Your task to perform on an android device: open app "Google Photos" Image 0: 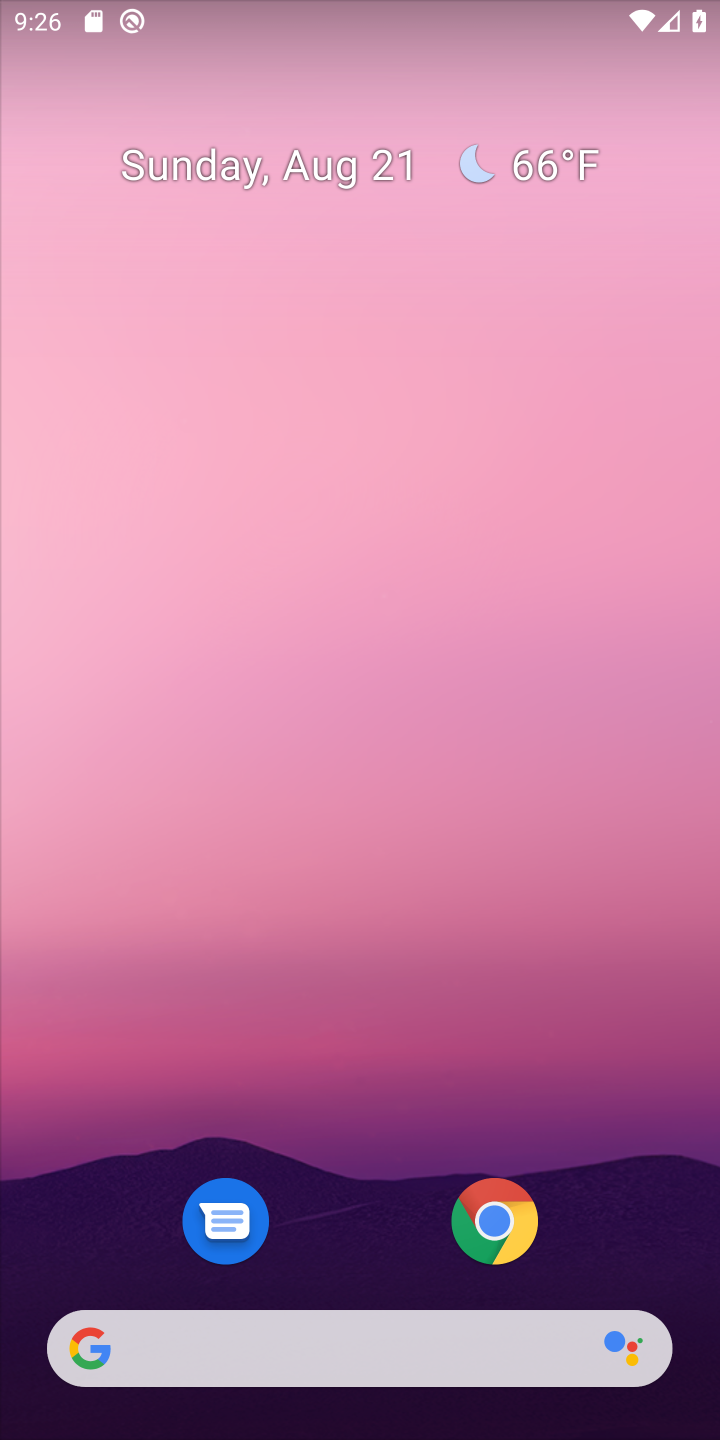
Step 0: drag from (366, 1150) to (298, 491)
Your task to perform on an android device: open app "Google Photos" Image 1: 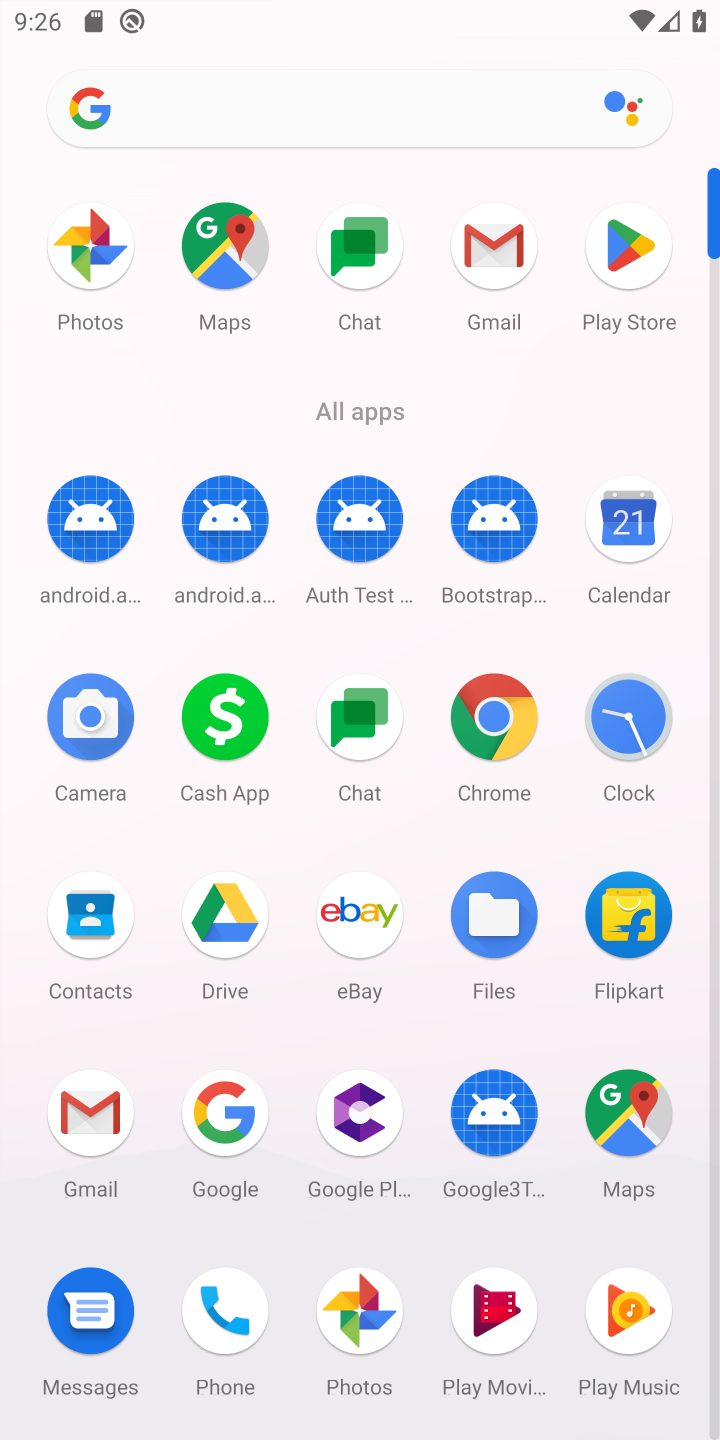
Step 1: click (608, 257)
Your task to perform on an android device: open app "Google Photos" Image 2: 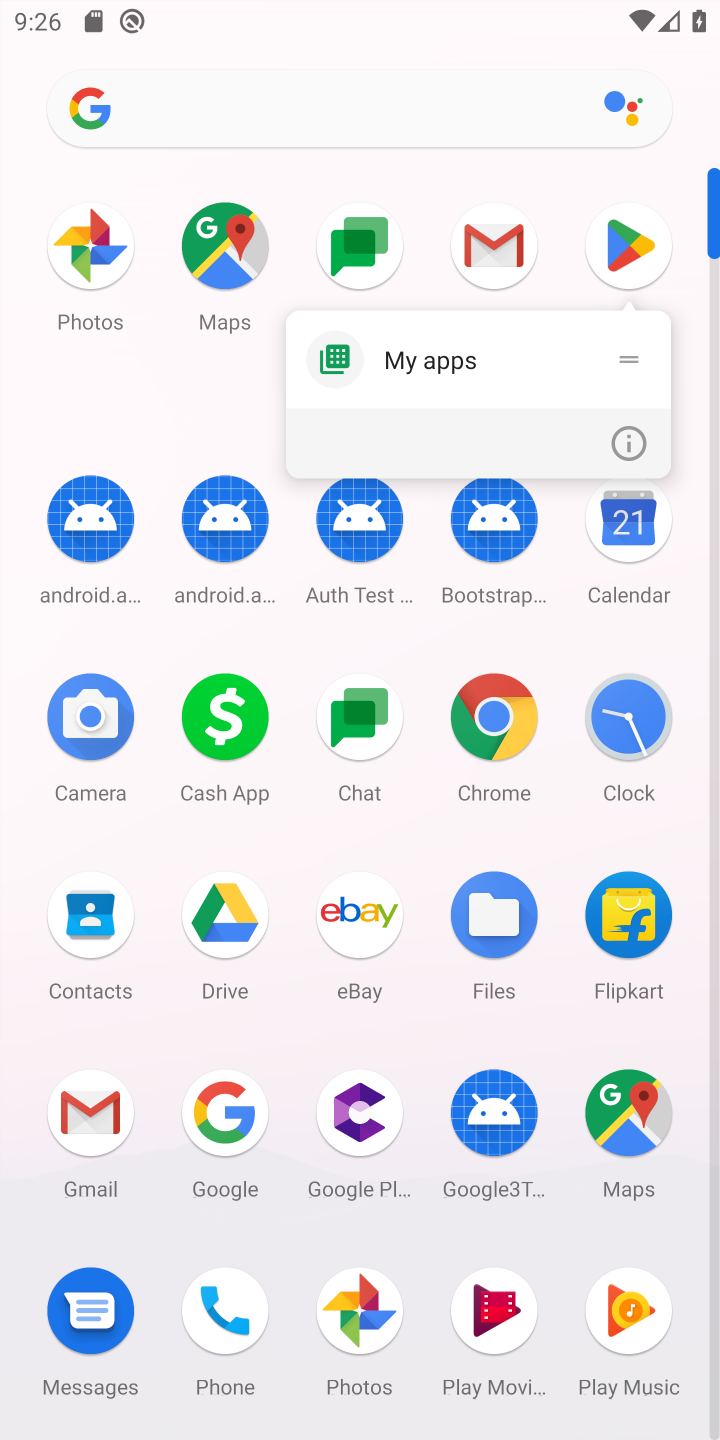
Step 2: click (617, 238)
Your task to perform on an android device: open app "Google Photos" Image 3: 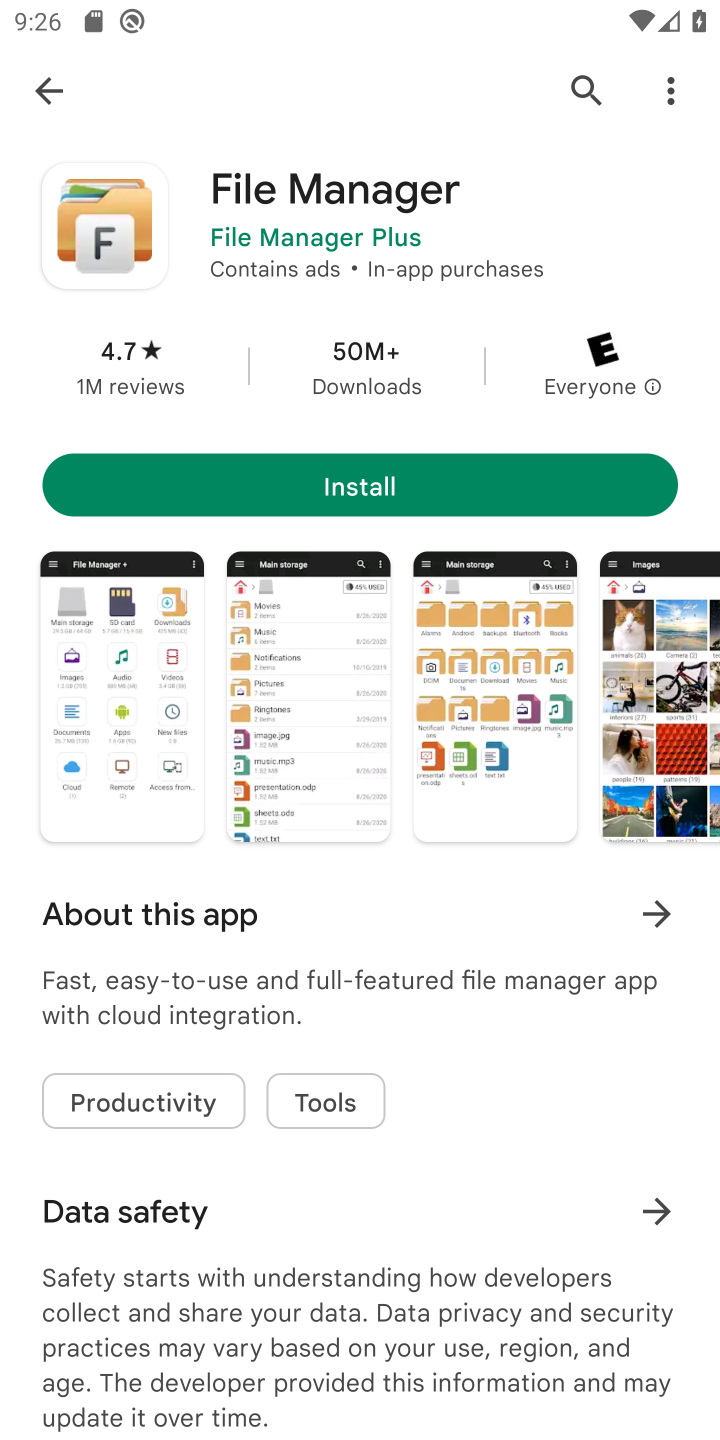
Step 3: click (576, 95)
Your task to perform on an android device: open app "Google Photos" Image 4: 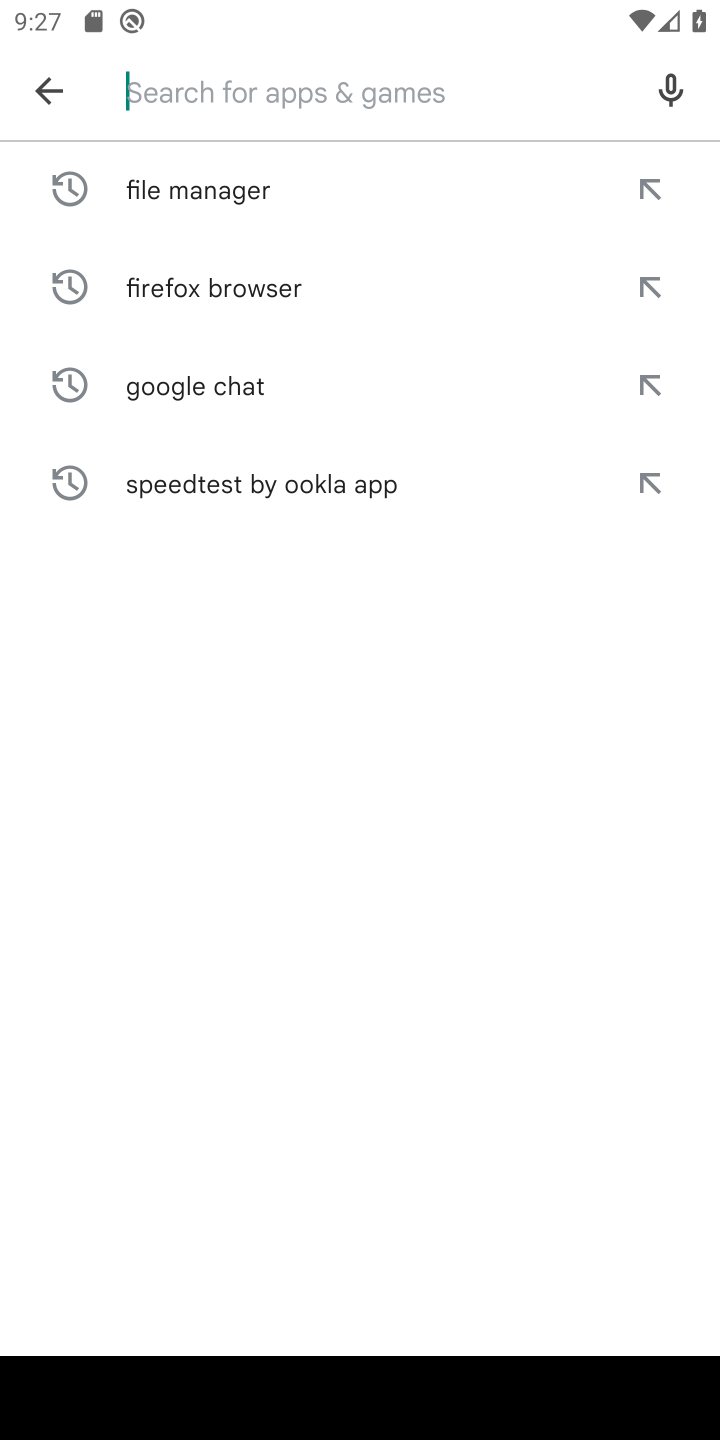
Step 4: type "Google Photos"
Your task to perform on an android device: open app "Google Photos" Image 5: 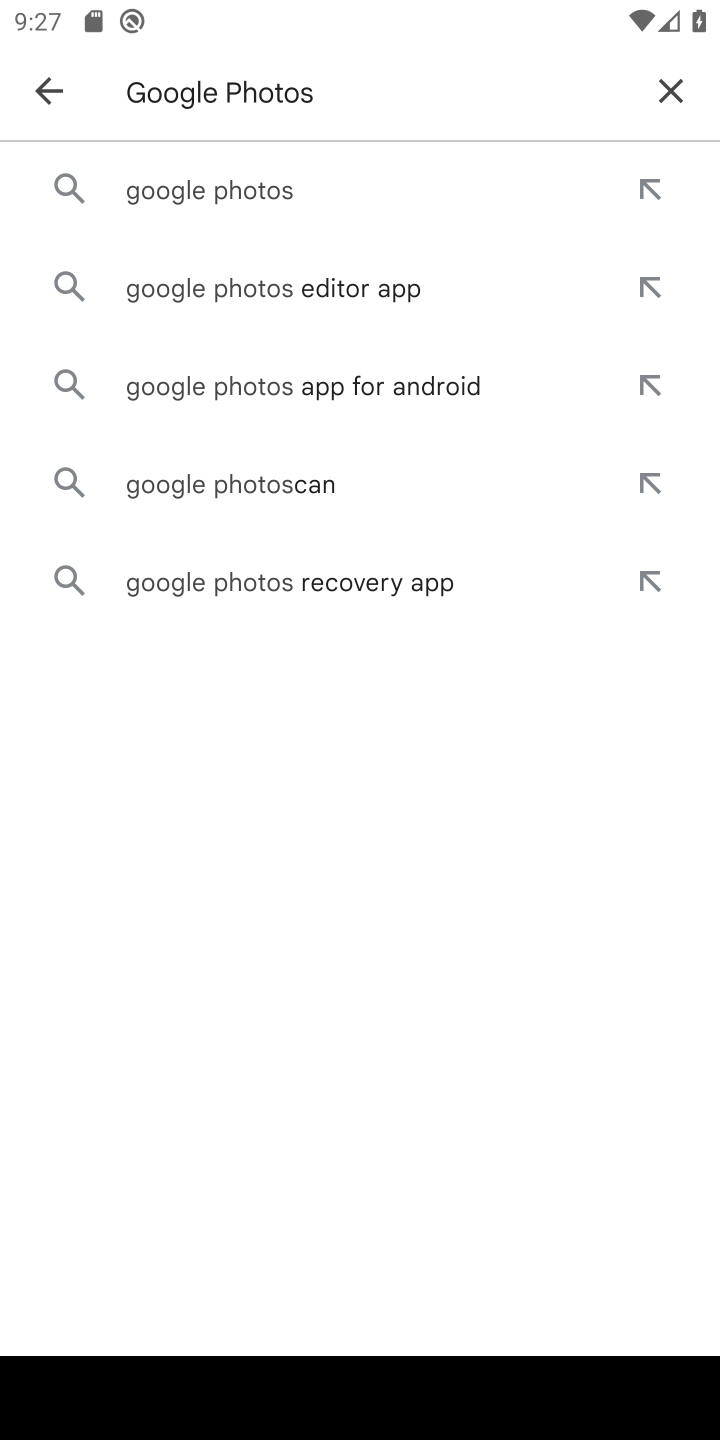
Step 5: click (244, 190)
Your task to perform on an android device: open app "Google Photos" Image 6: 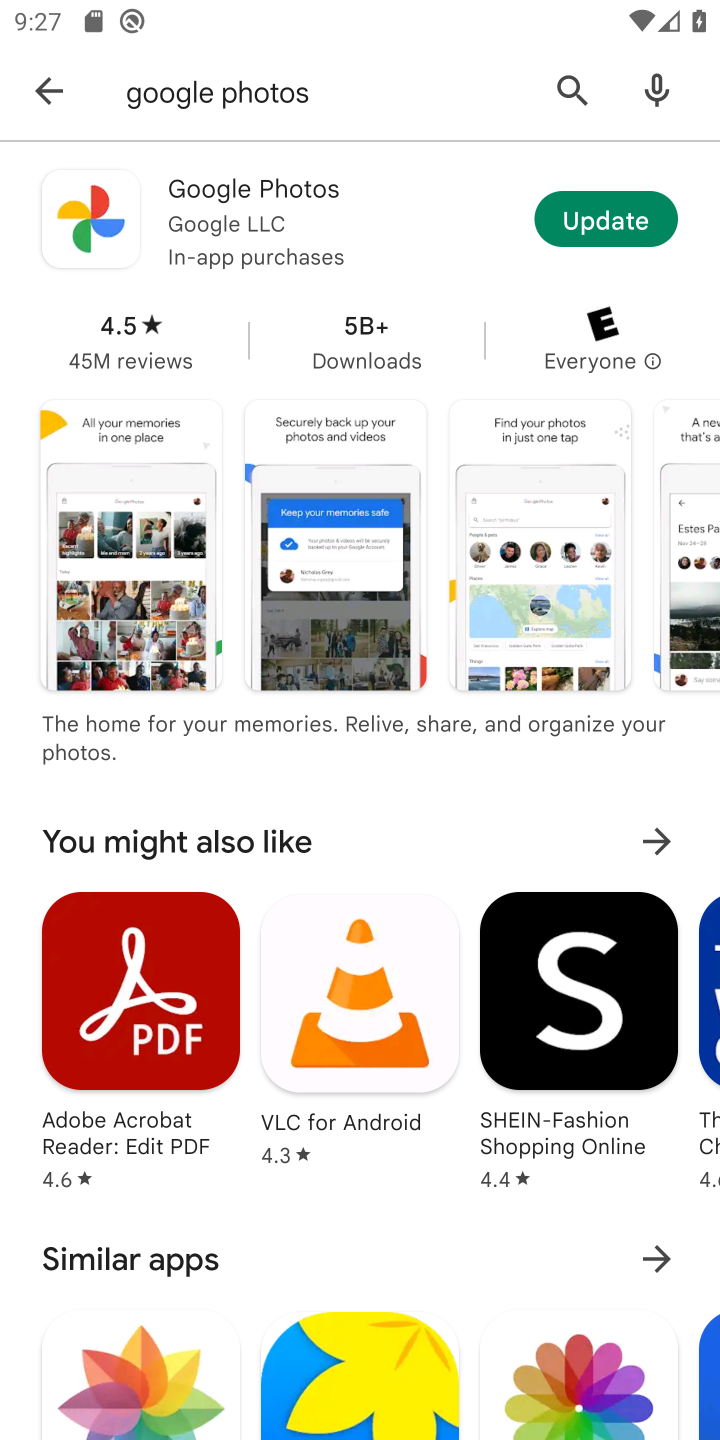
Step 6: click (361, 203)
Your task to perform on an android device: open app "Google Photos" Image 7: 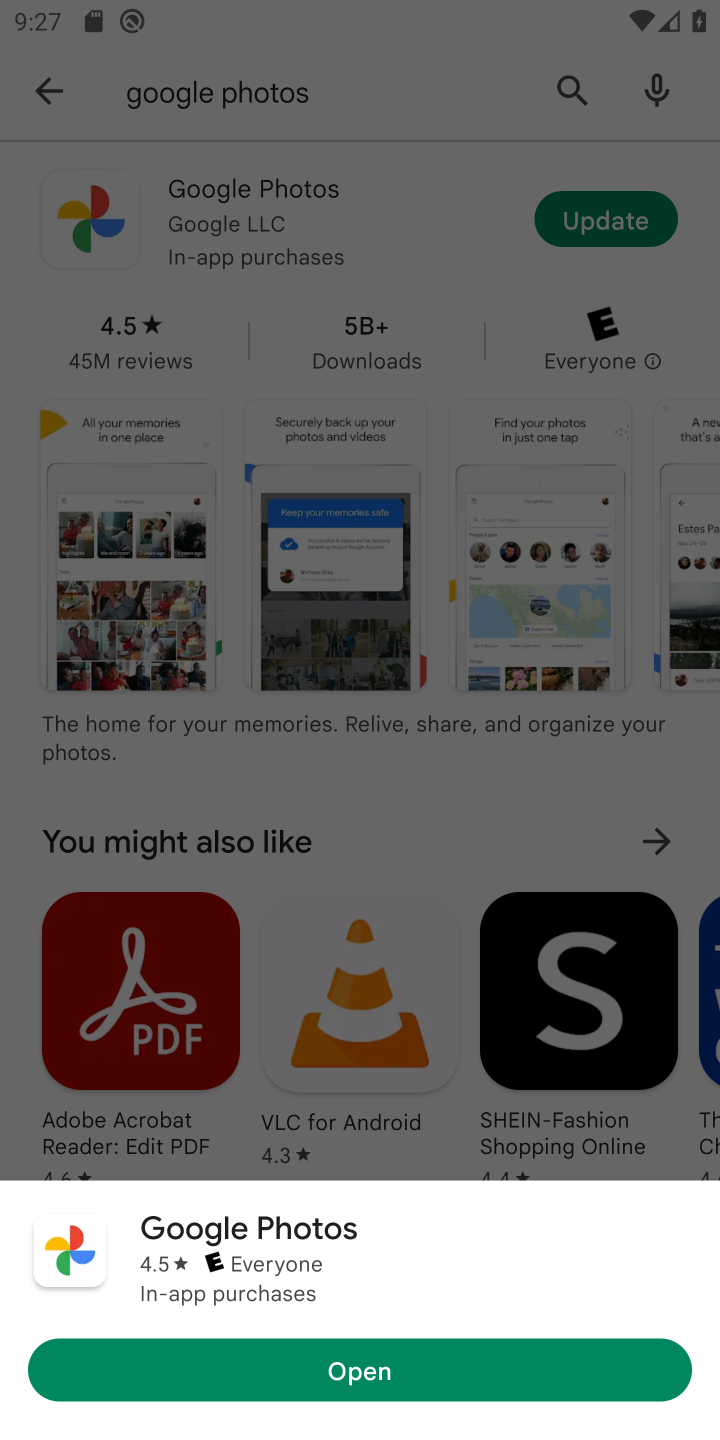
Step 7: click (254, 233)
Your task to perform on an android device: open app "Google Photos" Image 8: 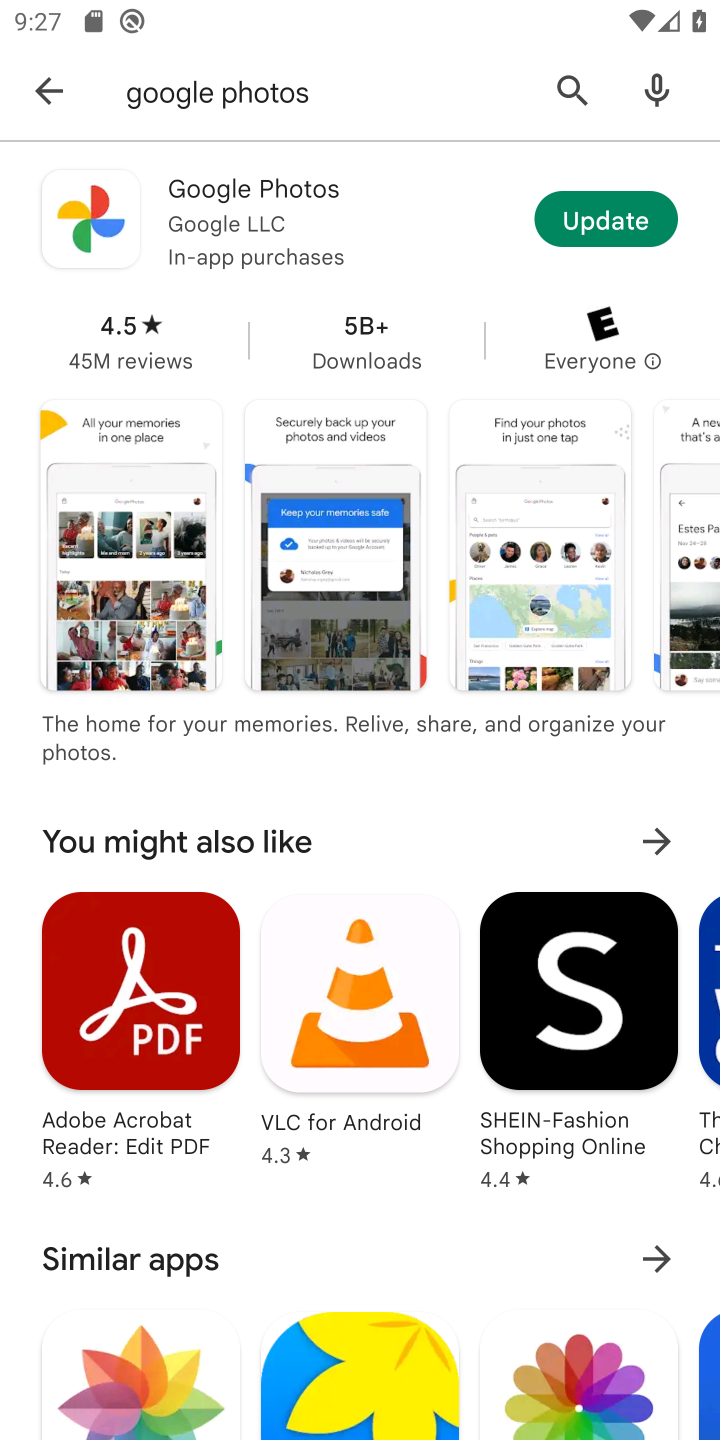
Step 8: click (292, 225)
Your task to perform on an android device: open app "Google Photos" Image 9: 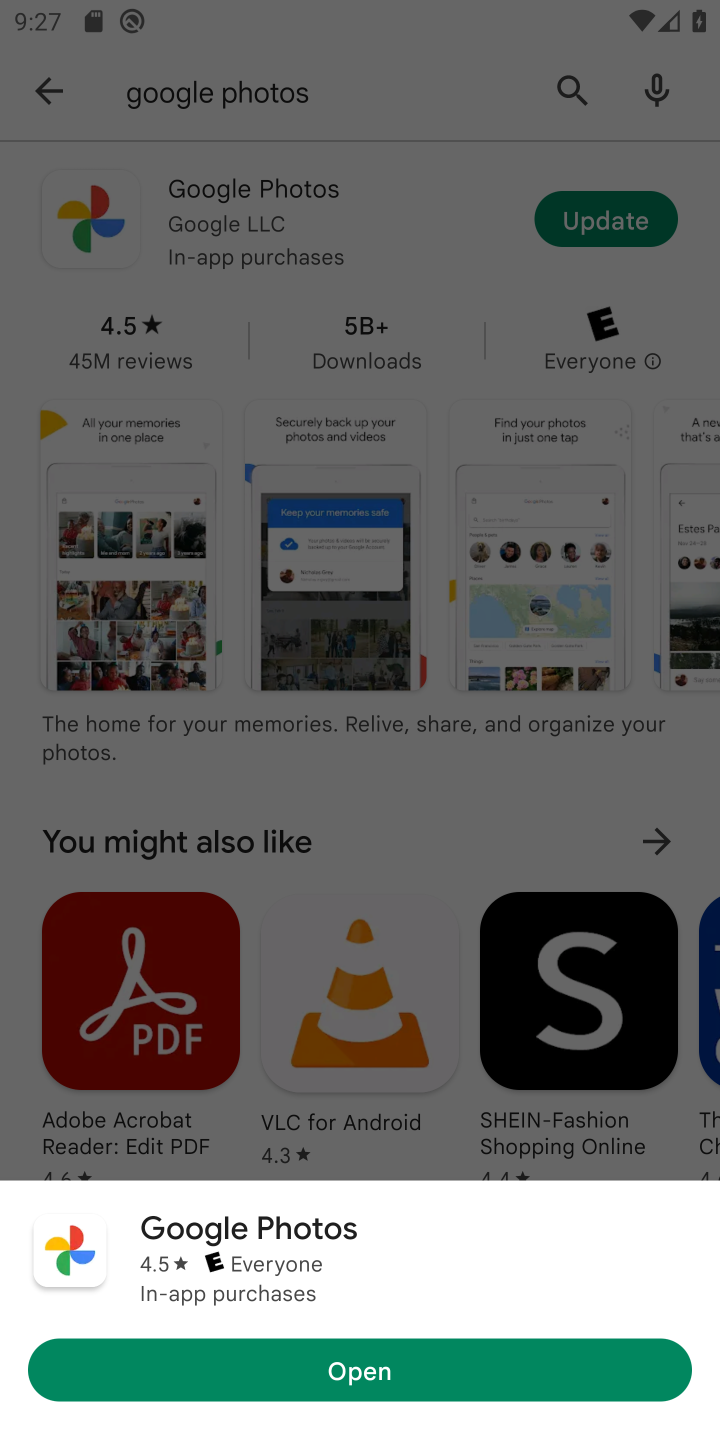
Step 9: click (77, 208)
Your task to perform on an android device: open app "Google Photos" Image 10: 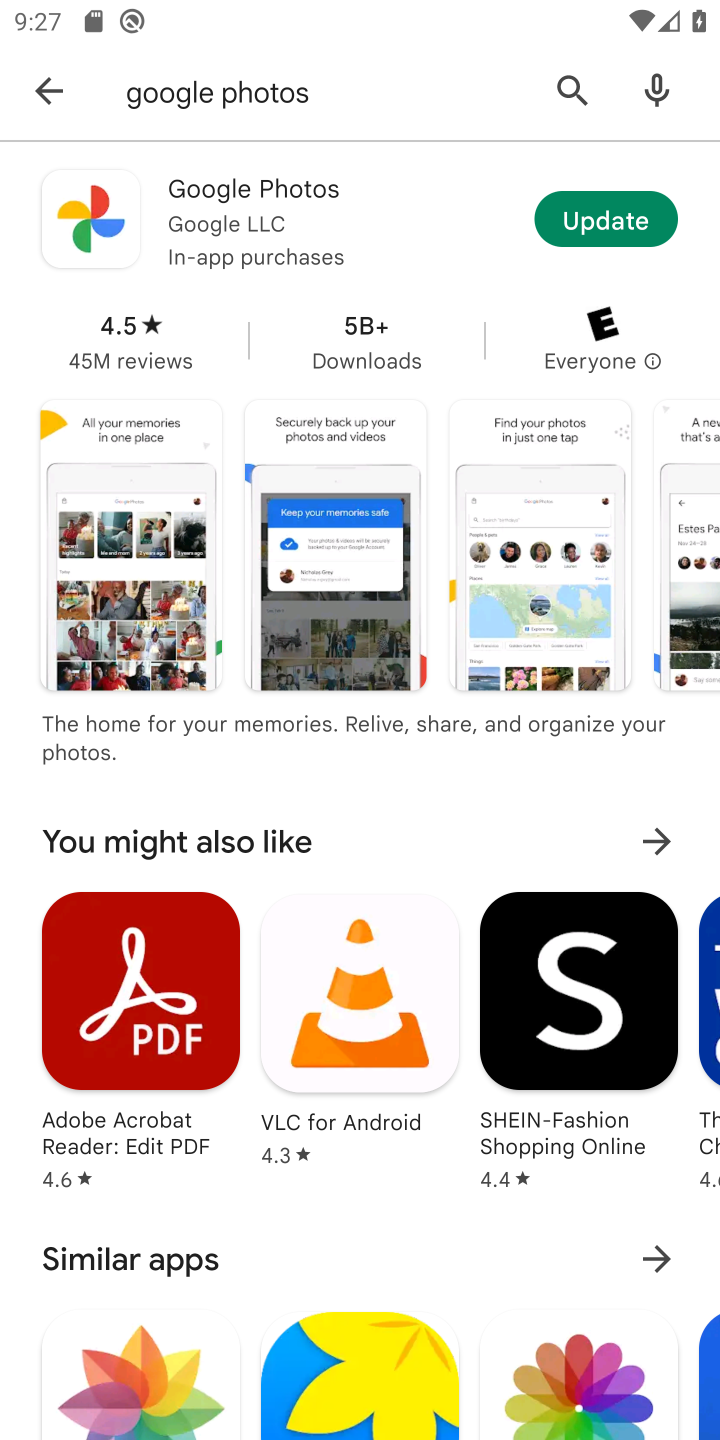
Step 10: click (278, 181)
Your task to perform on an android device: open app "Google Photos" Image 11: 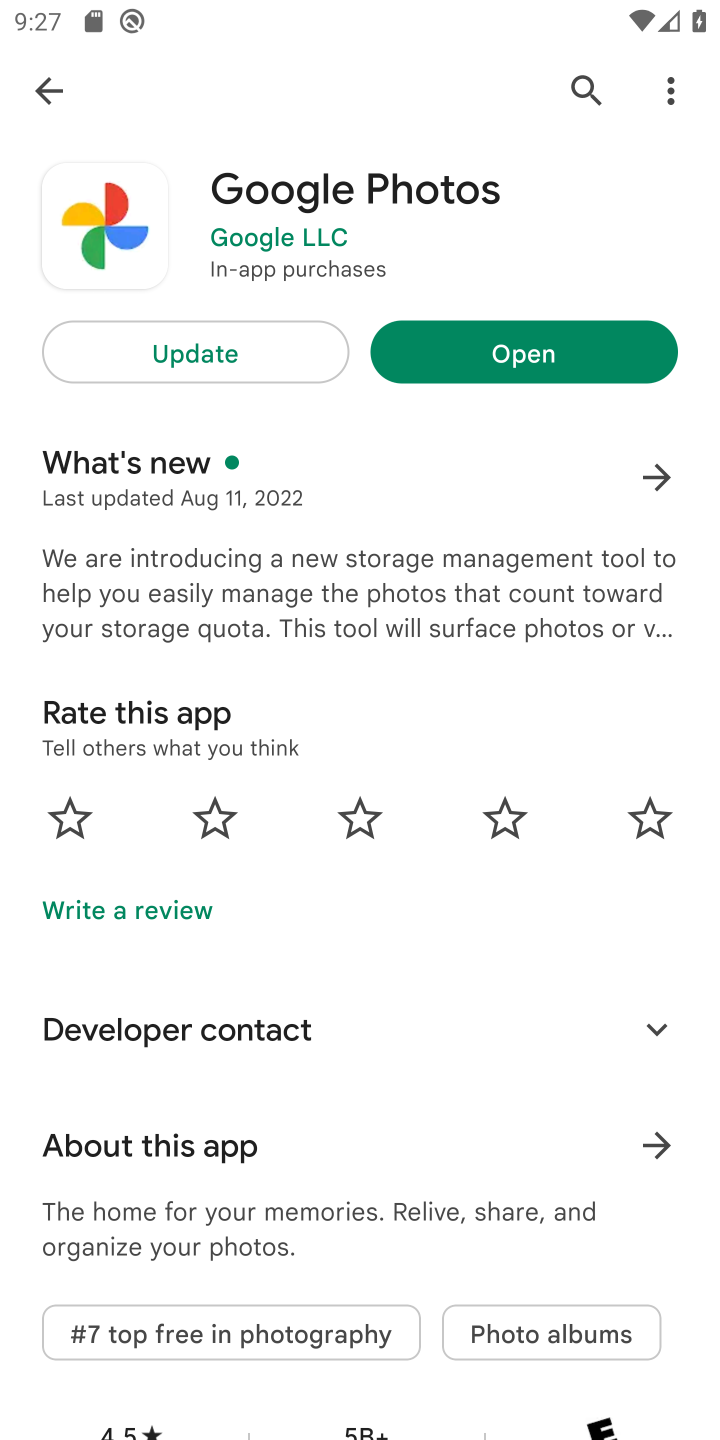
Step 11: click (487, 352)
Your task to perform on an android device: open app "Google Photos" Image 12: 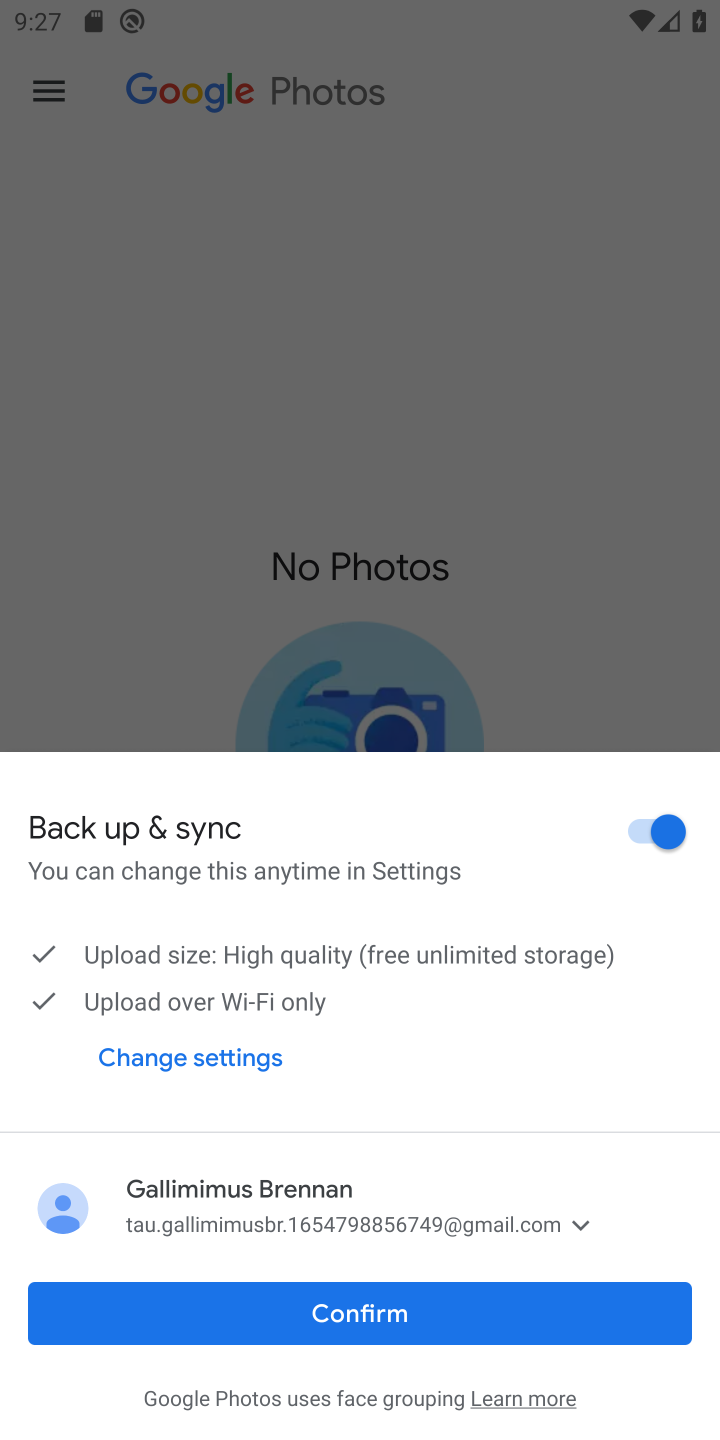
Step 12: task complete